Your task to perform on an android device: Open notification settings Image 0: 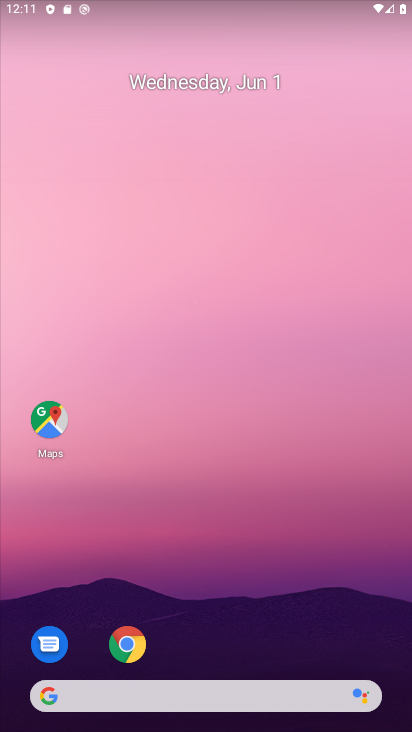
Step 0: drag from (302, 413) to (297, 112)
Your task to perform on an android device: Open notification settings Image 1: 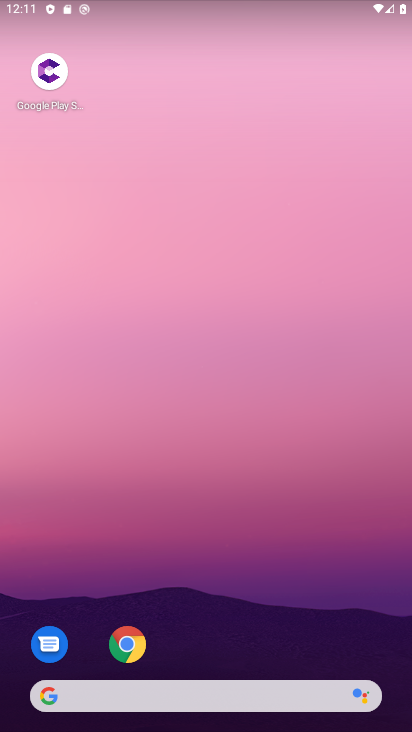
Step 1: drag from (310, 610) to (265, 4)
Your task to perform on an android device: Open notification settings Image 2: 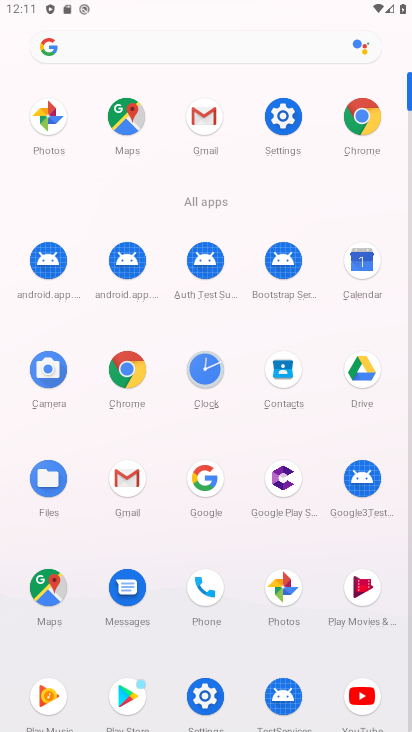
Step 2: click (294, 136)
Your task to perform on an android device: Open notification settings Image 3: 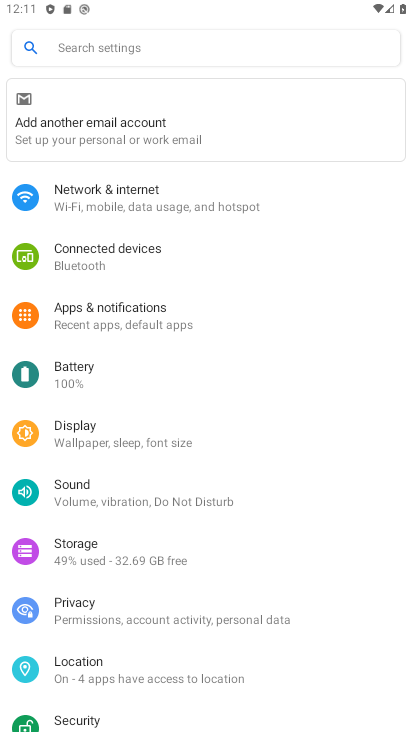
Step 3: click (108, 307)
Your task to perform on an android device: Open notification settings Image 4: 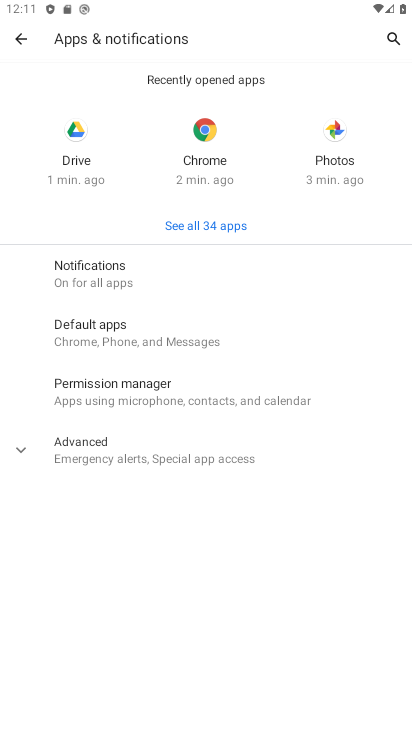
Step 4: task complete